Your task to perform on an android device: toggle data saver in the chrome app Image 0: 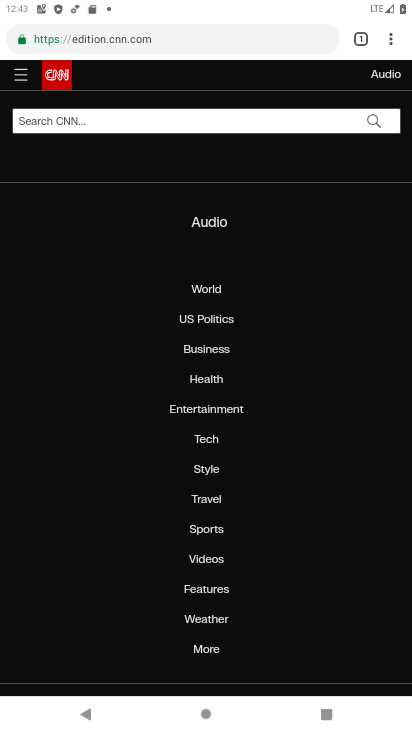
Step 0: press home button
Your task to perform on an android device: toggle data saver in the chrome app Image 1: 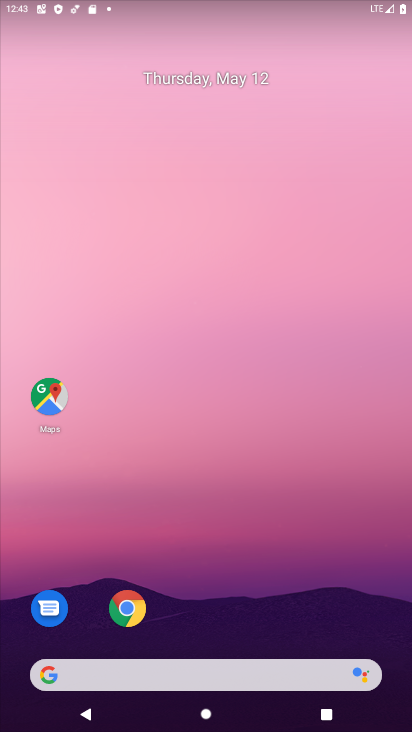
Step 1: click (139, 612)
Your task to perform on an android device: toggle data saver in the chrome app Image 2: 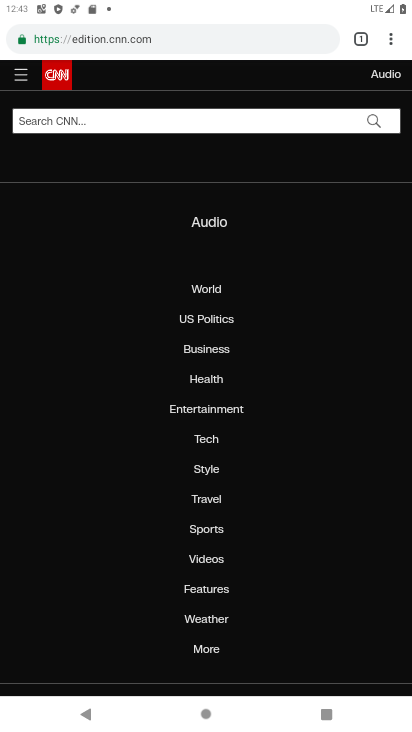
Step 2: click (394, 37)
Your task to perform on an android device: toggle data saver in the chrome app Image 3: 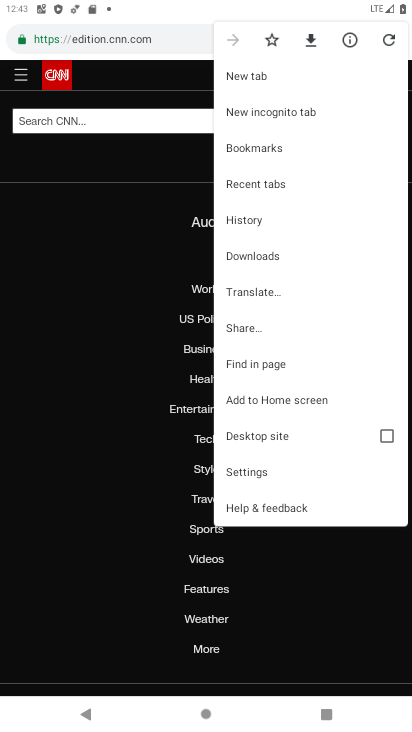
Step 3: click (246, 469)
Your task to perform on an android device: toggle data saver in the chrome app Image 4: 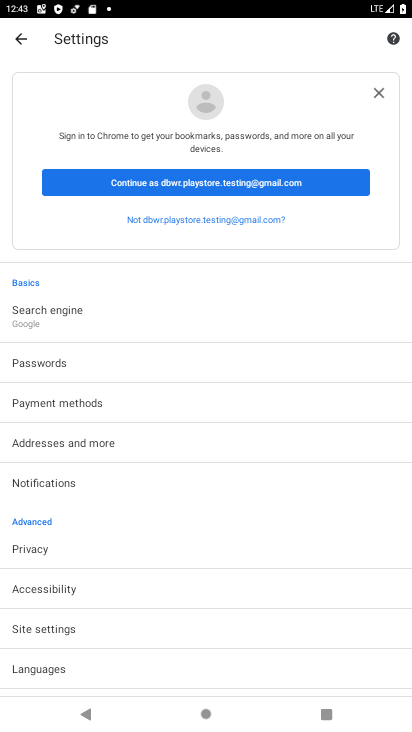
Step 4: drag from (103, 631) to (103, 443)
Your task to perform on an android device: toggle data saver in the chrome app Image 5: 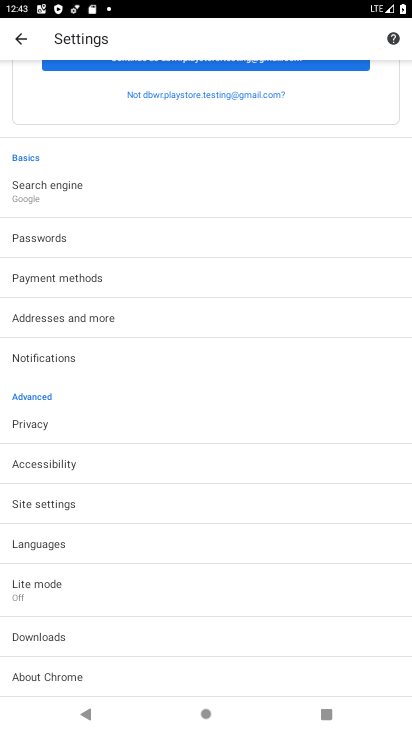
Step 5: click (28, 587)
Your task to perform on an android device: toggle data saver in the chrome app Image 6: 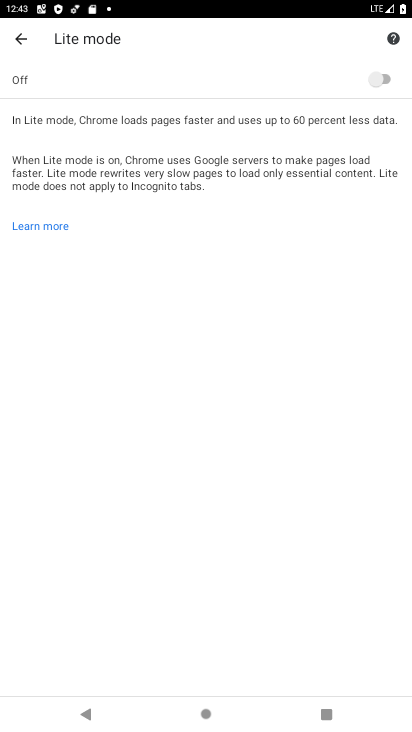
Step 6: click (368, 74)
Your task to perform on an android device: toggle data saver in the chrome app Image 7: 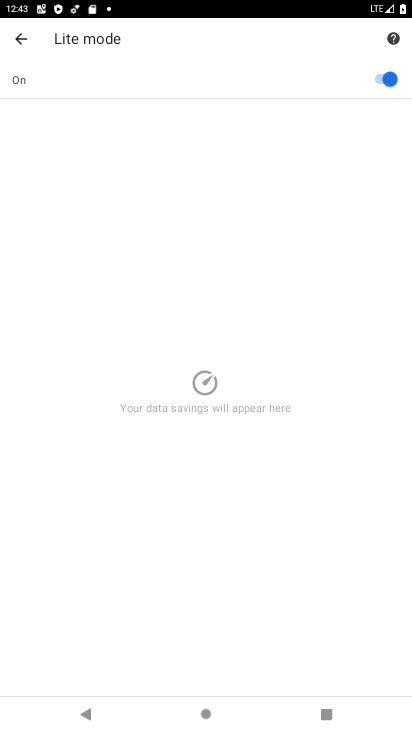
Step 7: task complete